Your task to perform on an android device: What's on the menu at Denny's? Image 0: 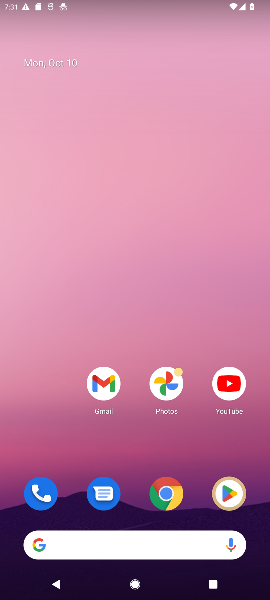
Step 0: drag from (136, 131) to (136, 90)
Your task to perform on an android device: What's on the menu at Denny's? Image 1: 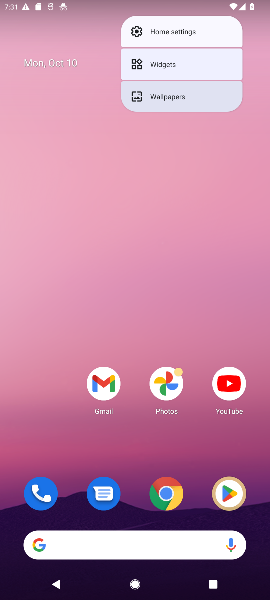
Step 1: drag from (137, 432) to (146, 88)
Your task to perform on an android device: What's on the menu at Denny's? Image 2: 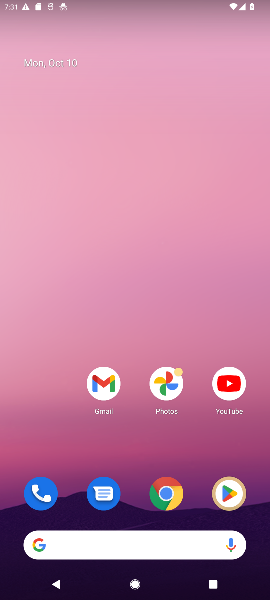
Step 2: drag from (130, 73) to (138, 19)
Your task to perform on an android device: What's on the menu at Denny's? Image 3: 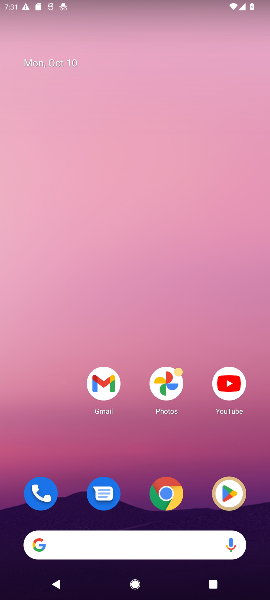
Step 3: drag from (136, 484) to (94, 1)
Your task to perform on an android device: What's on the menu at Denny's? Image 4: 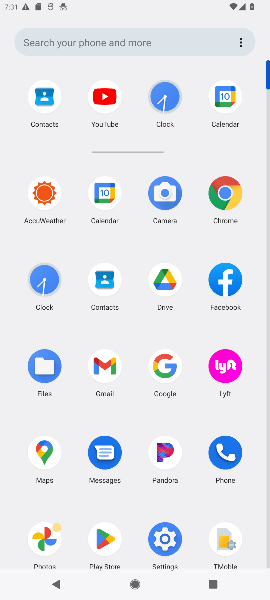
Step 4: click (169, 368)
Your task to perform on an android device: What's on the menu at Denny's? Image 5: 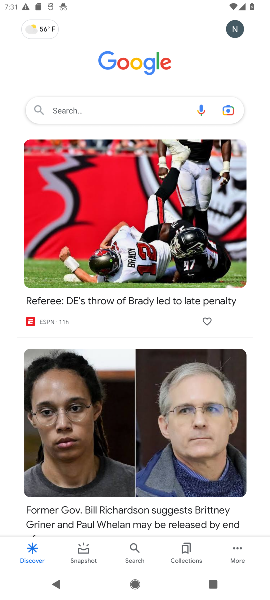
Step 5: click (162, 95)
Your task to perform on an android device: What's on the menu at Denny's? Image 6: 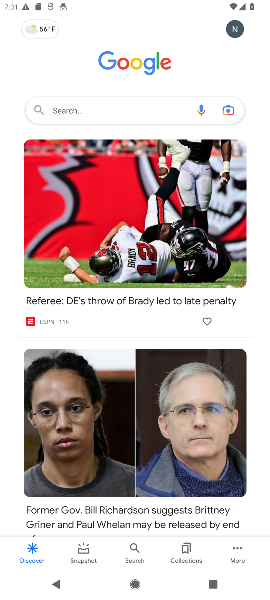
Step 6: click (144, 106)
Your task to perform on an android device: What's on the menu at Denny's? Image 7: 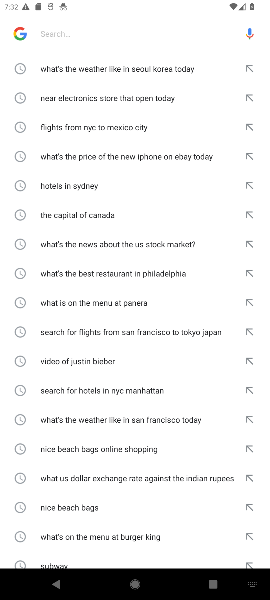
Step 7: type "What's on the menu at Denny's?"
Your task to perform on an android device: What's on the menu at Denny's? Image 8: 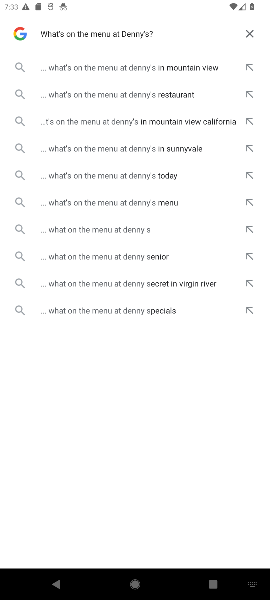
Step 8: click (139, 65)
Your task to perform on an android device: What's on the menu at Denny's? Image 9: 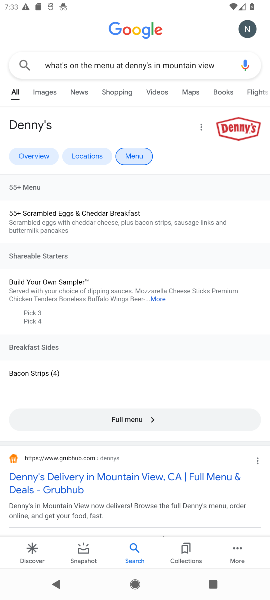
Step 9: task complete